Your task to perform on an android device: Check the weather Image 0: 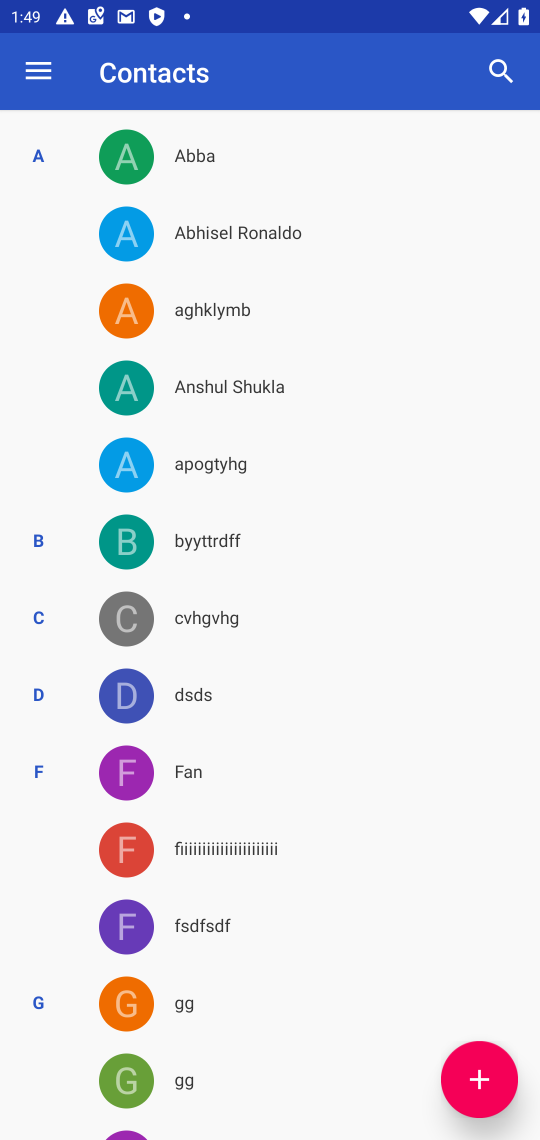
Step 0: press home button
Your task to perform on an android device: Check the weather Image 1: 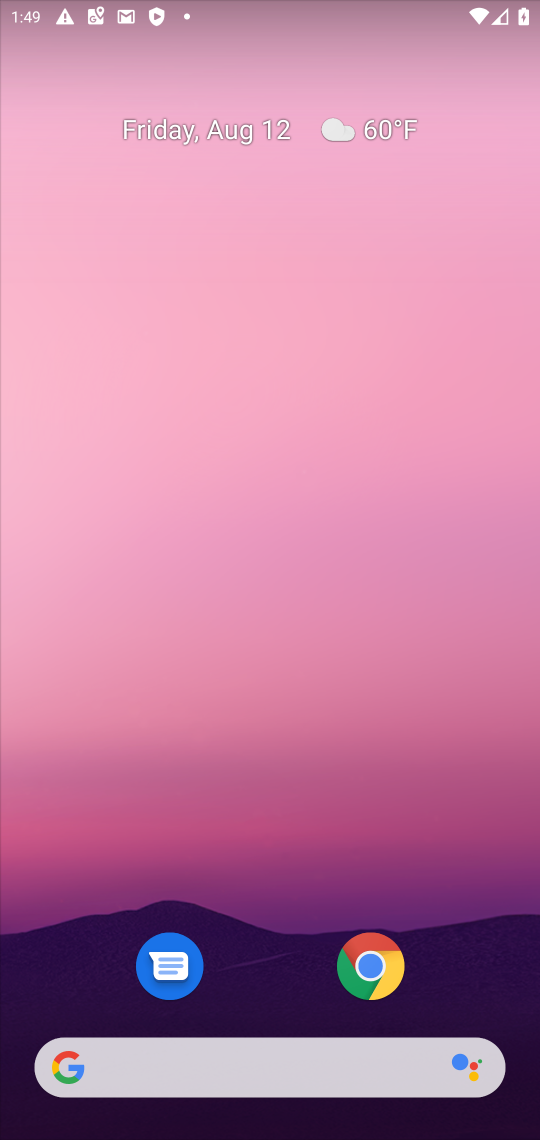
Step 1: click (403, 128)
Your task to perform on an android device: Check the weather Image 2: 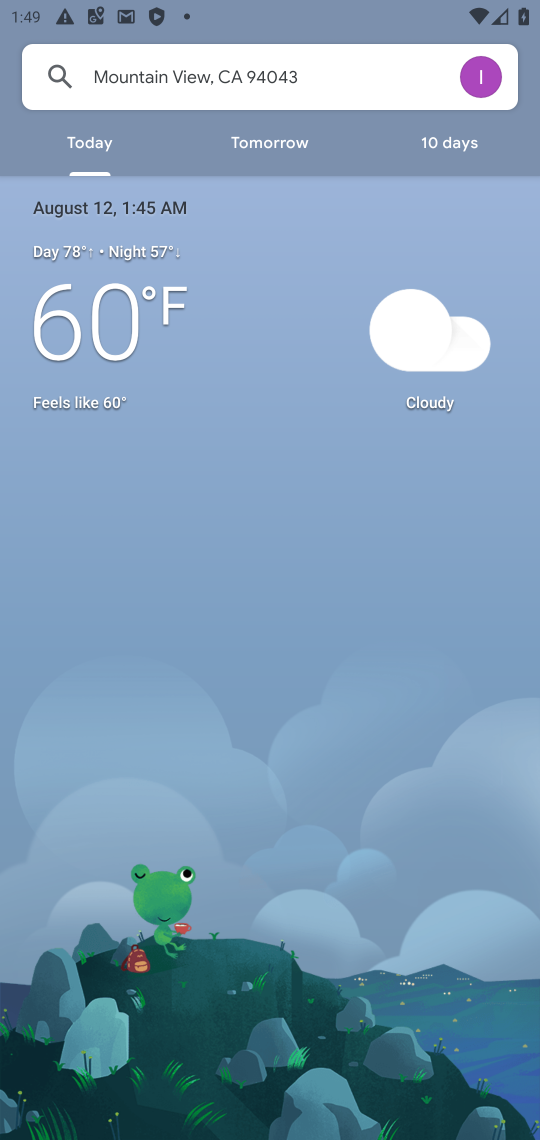
Step 2: task complete